Your task to perform on an android device: Go to Reddit.com Image 0: 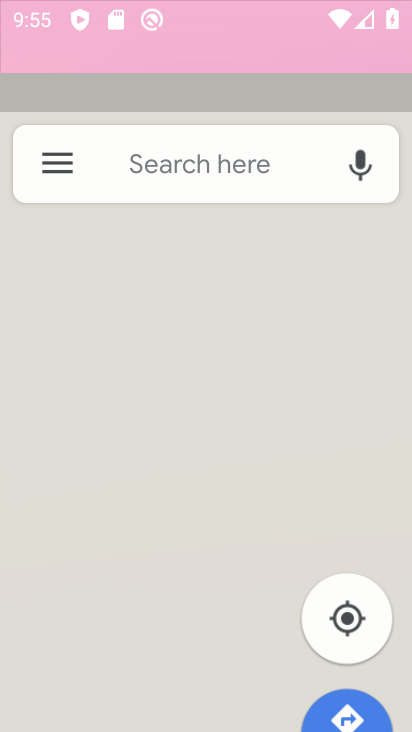
Step 0: click (94, 42)
Your task to perform on an android device: Go to Reddit.com Image 1: 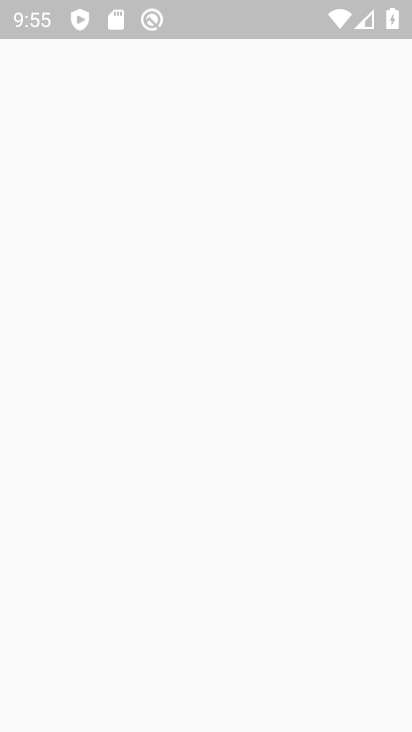
Step 1: drag from (247, 478) to (214, 0)
Your task to perform on an android device: Go to Reddit.com Image 2: 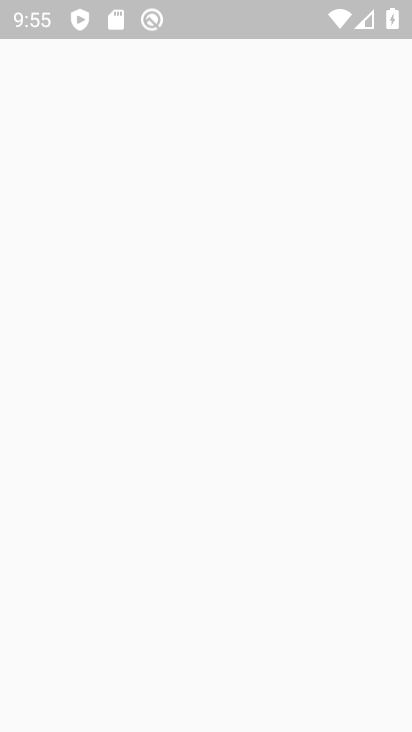
Step 2: press back button
Your task to perform on an android device: Go to Reddit.com Image 3: 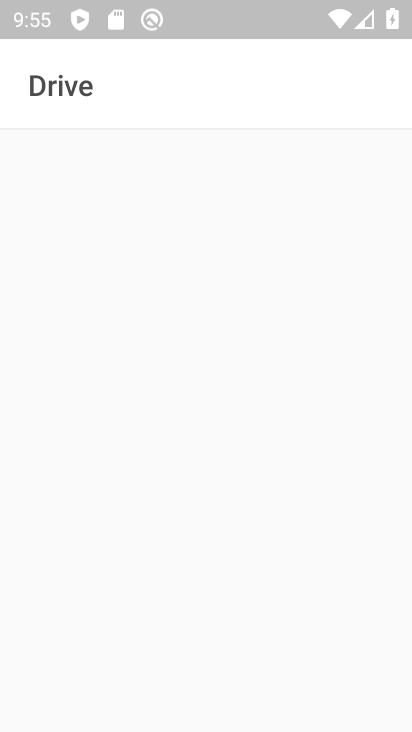
Step 3: press back button
Your task to perform on an android device: Go to Reddit.com Image 4: 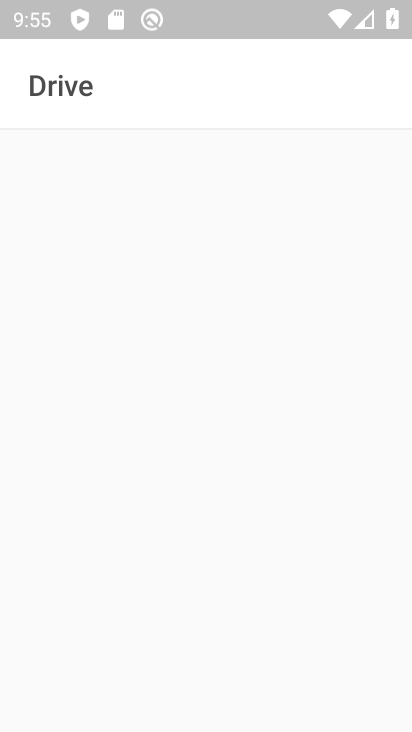
Step 4: press home button
Your task to perform on an android device: Go to Reddit.com Image 5: 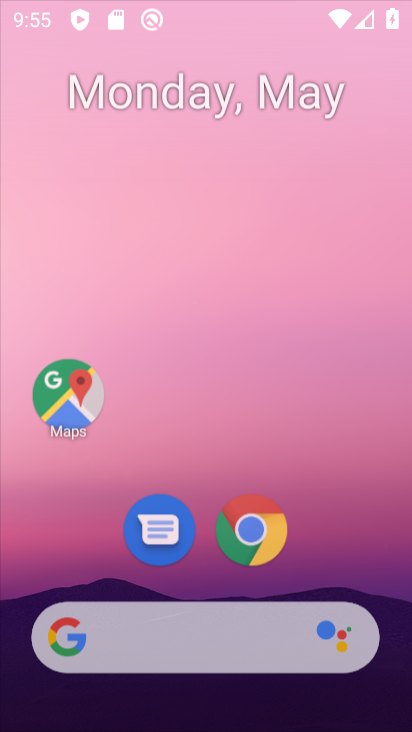
Step 5: press home button
Your task to perform on an android device: Go to Reddit.com Image 6: 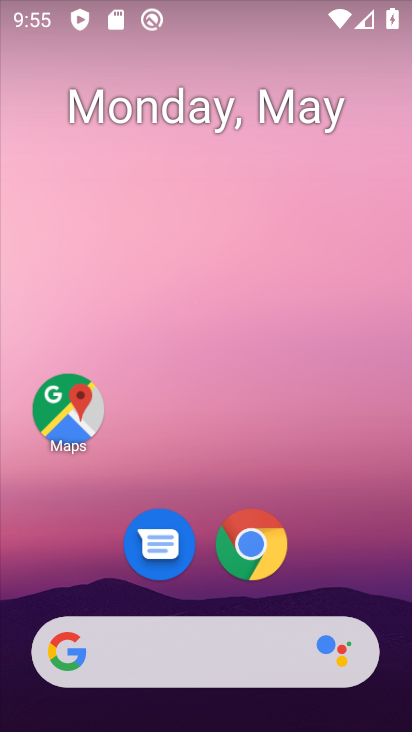
Step 6: drag from (264, 669) to (141, 154)
Your task to perform on an android device: Go to Reddit.com Image 7: 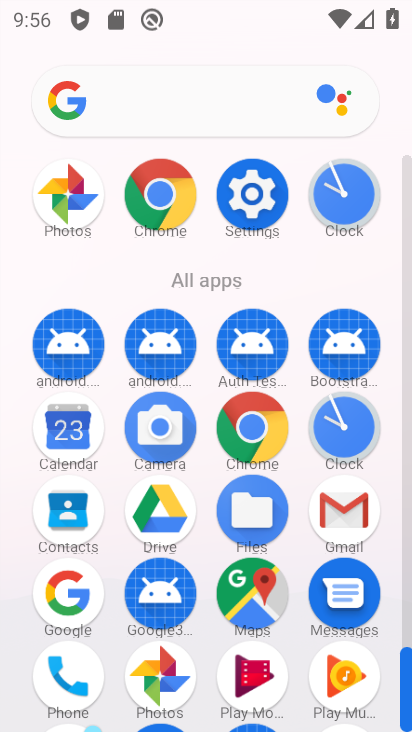
Step 7: click (133, 195)
Your task to perform on an android device: Go to Reddit.com Image 8: 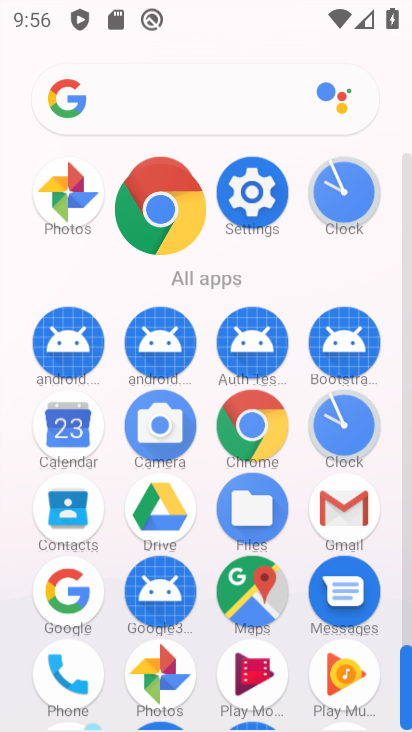
Step 8: click (156, 205)
Your task to perform on an android device: Go to Reddit.com Image 9: 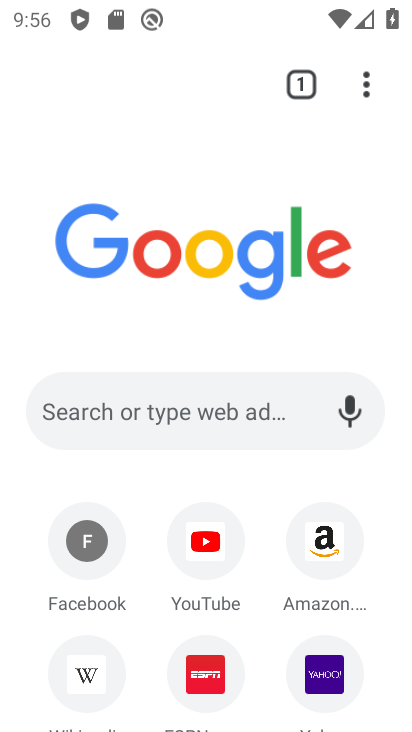
Step 9: click (165, 203)
Your task to perform on an android device: Go to Reddit.com Image 10: 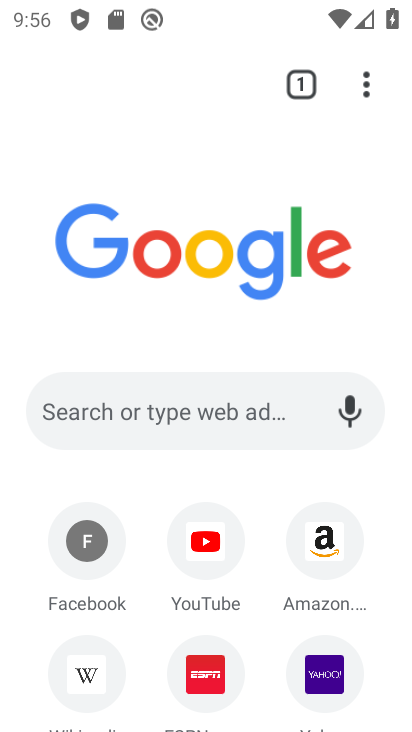
Step 10: click (112, 415)
Your task to perform on an android device: Go to Reddit.com Image 11: 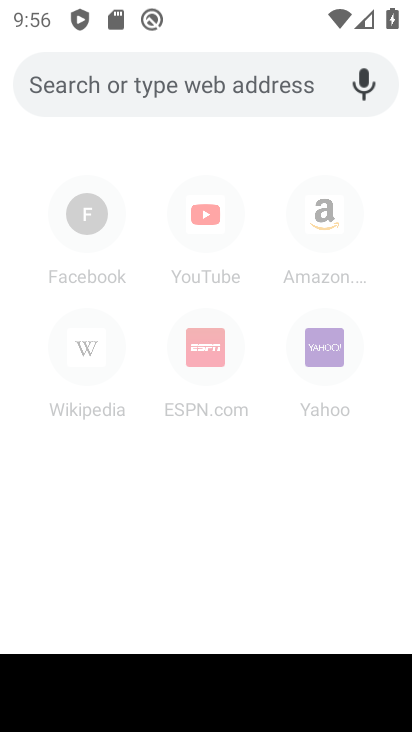
Step 11: type "reddit.com"
Your task to perform on an android device: Go to Reddit.com Image 12: 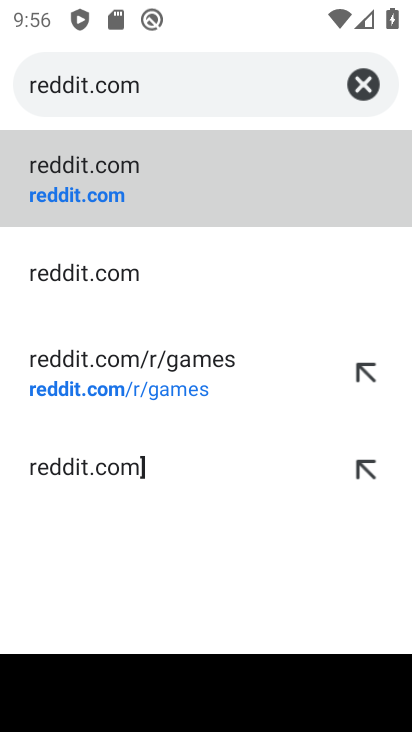
Step 12: click (72, 195)
Your task to perform on an android device: Go to Reddit.com Image 13: 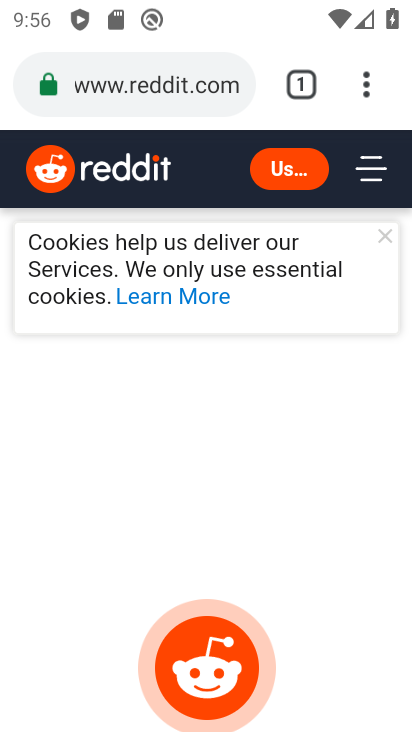
Step 13: task complete